Your task to perform on an android device: Show me popular videos on Youtube Image 0: 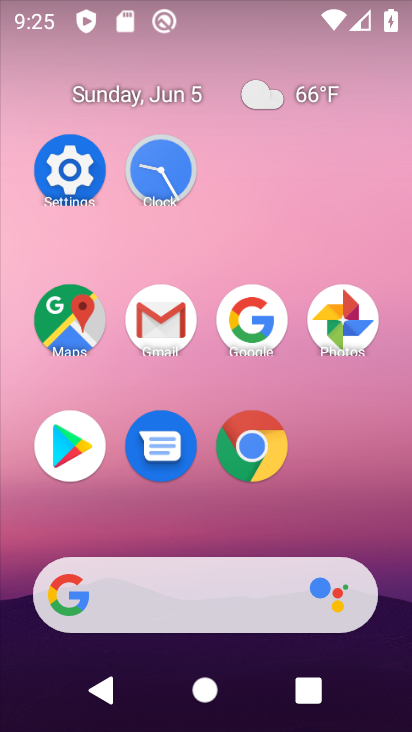
Step 0: drag from (329, 485) to (303, 134)
Your task to perform on an android device: Show me popular videos on Youtube Image 1: 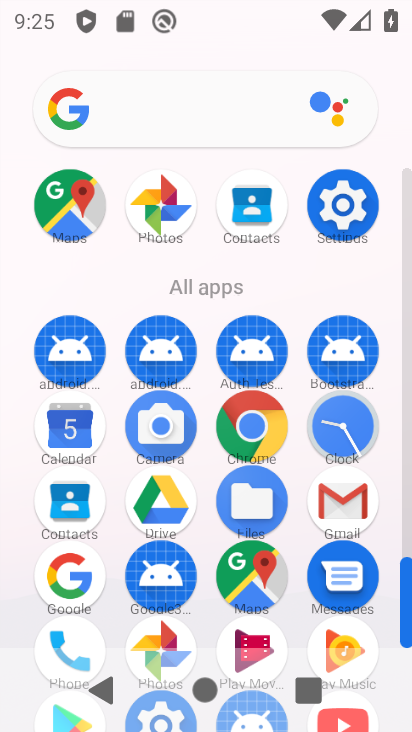
Step 1: drag from (202, 432) to (216, 193)
Your task to perform on an android device: Show me popular videos on Youtube Image 2: 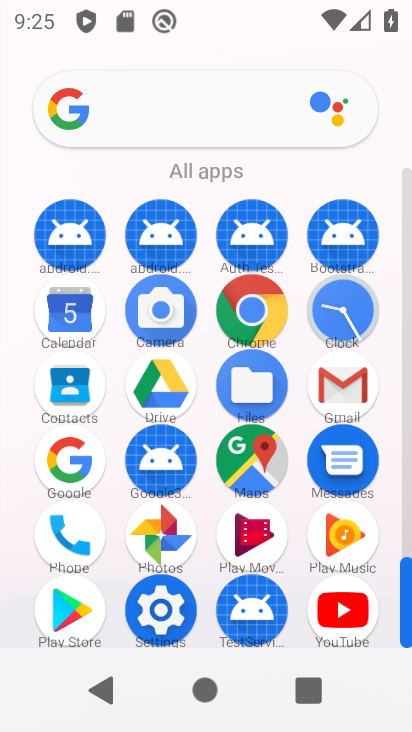
Step 2: drag from (351, 595) to (326, 427)
Your task to perform on an android device: Show me popular videos on Youtube Image 3: 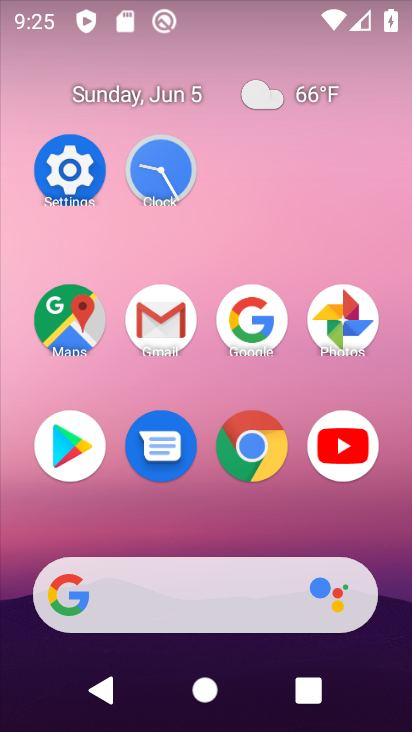
Step 3: click (354, 458)
Your task to perform on an android device: Show me popular videos on Youtube Image 4: 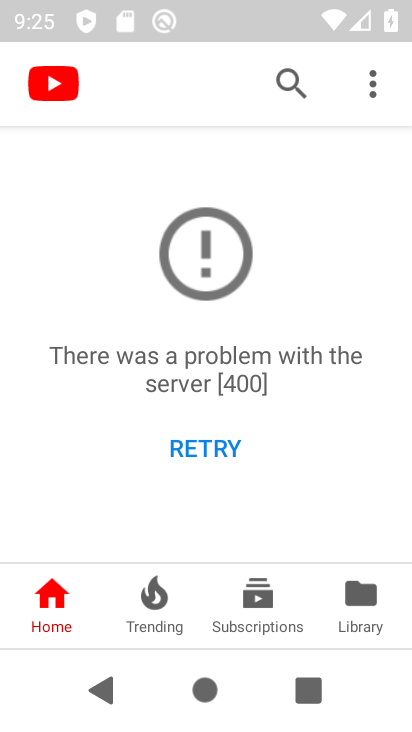
Step 4: task complete